Your task to perform on an android device: open the mobile data screen to see how much data has been used Image 0: 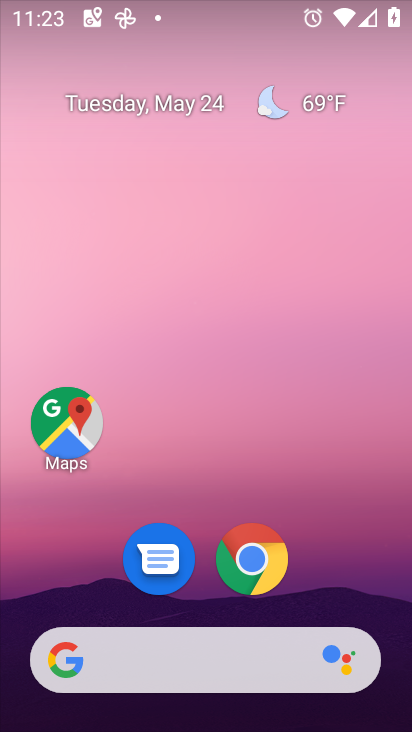
Step 0: drag from (398, 620) to (261, 74)
Your task to perform on an android device: open the mobile data screen to see how much data has been used Image 1: 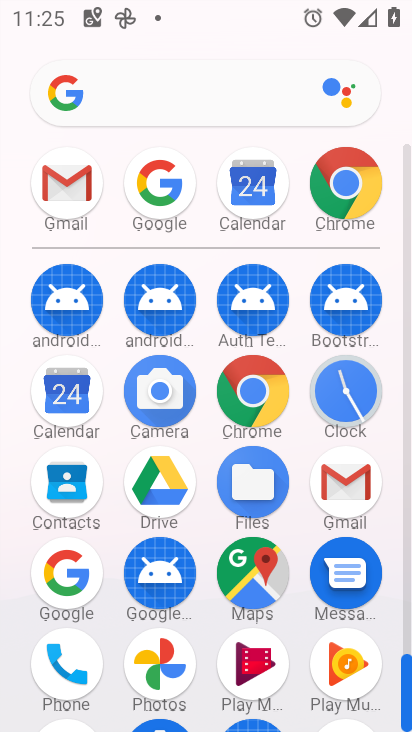
Step 1: drag from (113, 596) to (90, 158)
Your task to perform on an android device: open the mobile data screen to see how much data has been used Image 2: 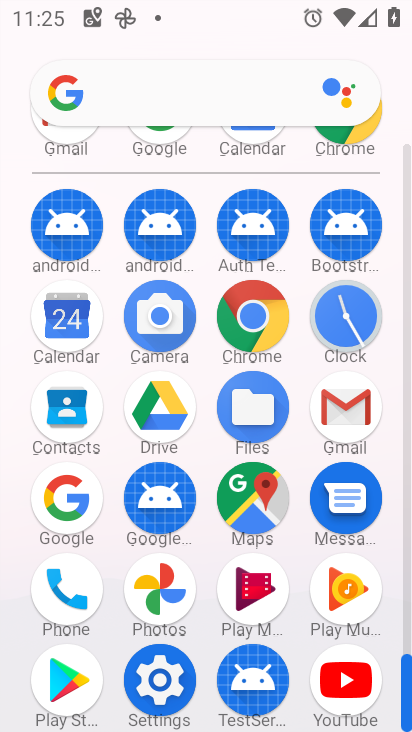
Step 2: click (168, 677)
Your task to perform on an android device: open the mobile data screen to see how much data has been used Image 3: 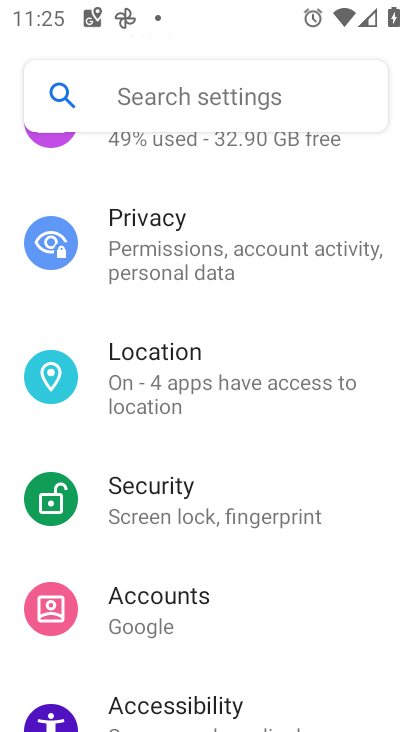
Step 3: drag from (224, 207) to (116, 726)
Your task to perform on an android device: open the mobile data screen to see how much data has been used Image 4: 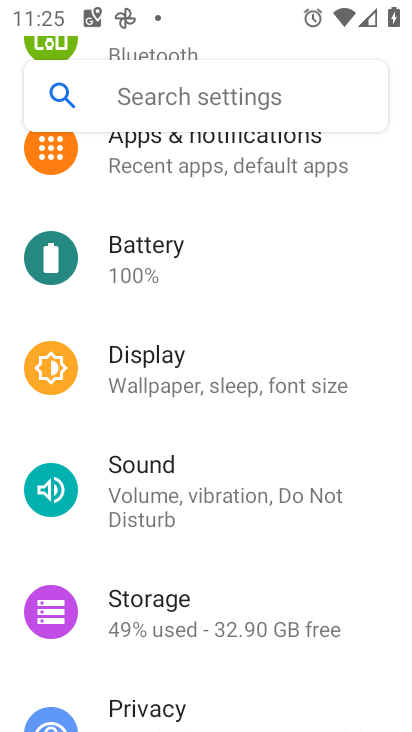
Step 4: drag from (188, 187) to (26, 689)
Your task to perform on an android device: open the mobile data screen to see how much data has been used Image 5: 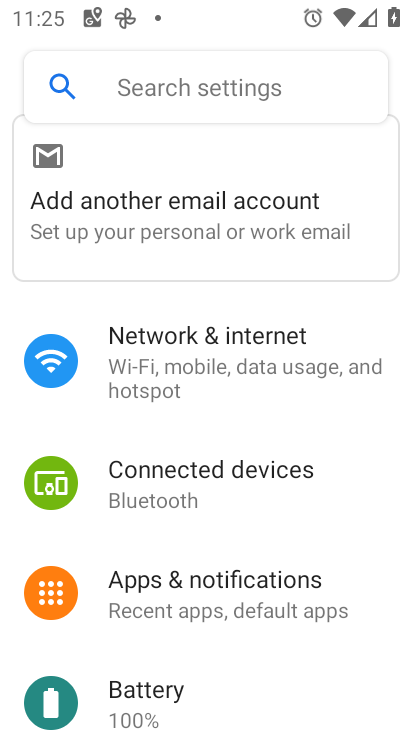
Step 5: click (212, 377)
Your task to perform on an android device: open the mobile data screen to see how much data has been used Image 6: 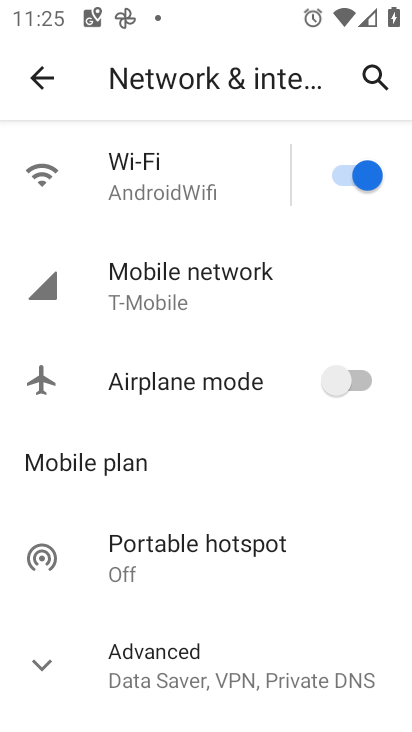
Step 6: click (195, 286)
Your task to perform on an android device: open the mobile data screen to see how much data has been used Image 7: 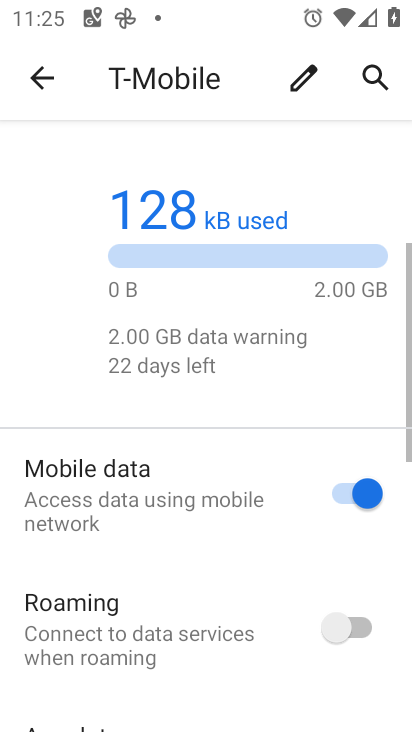
Step 7: drag from (200, 661) to (191, 208)
Your task to perform on an android device: open the mobile data screen to see how much data has been used Image 8: 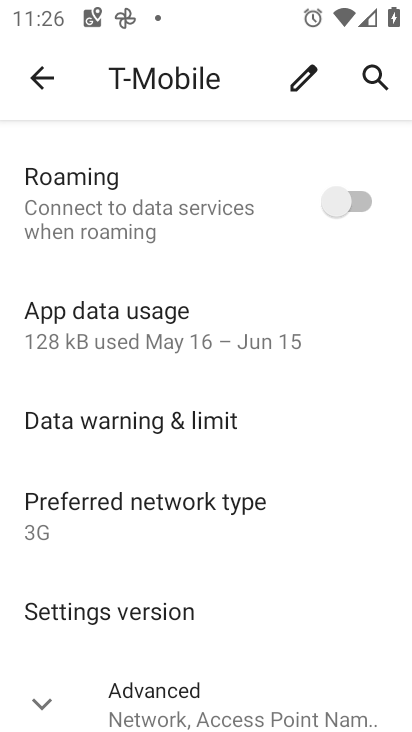
Step 8: click (130, 334)
Your task to perform on an android device: open the mobile data screen to see how much data has been used Image 9: 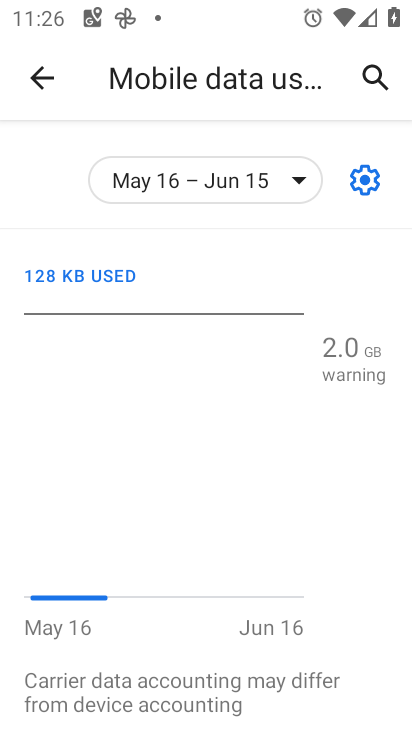
Step 9: task complete